Your task to perform on an android device: turn on airplane mode Image 0: 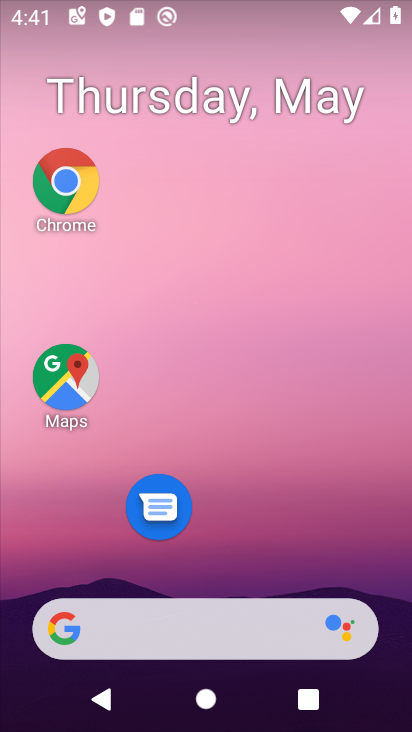
Step 0: drag from (385, 668) to (35, 131)
Your task to perform on an android device: turn on airplane mode Image 1: 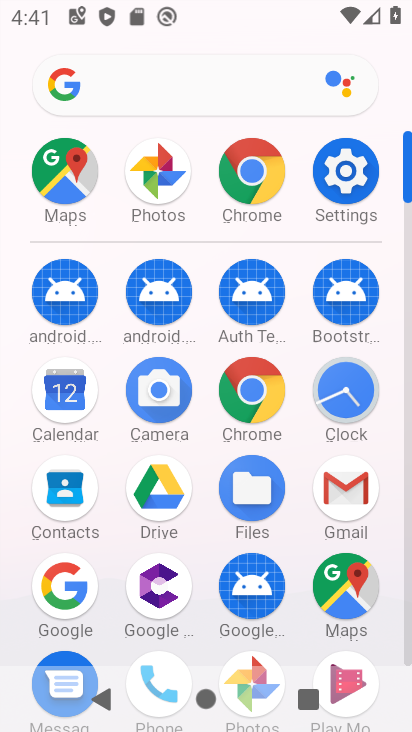
Step 1: click (344, 177)
Your task to perform on an android device: turn on airplane mode Image 2: 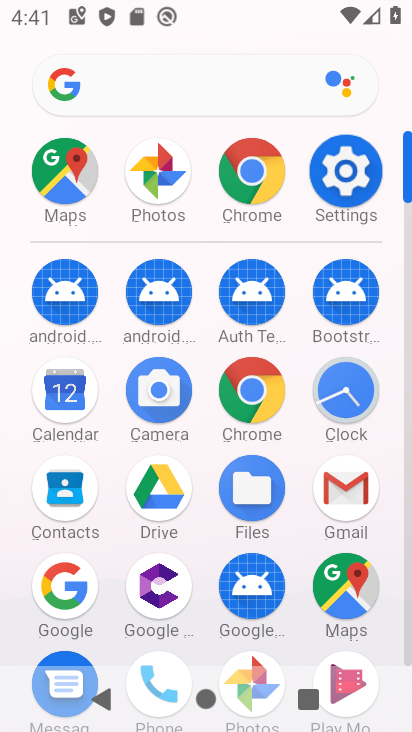
Step 2: click (346, 165)
Your task to perform on an android device: turn on airplane mode Image 3: 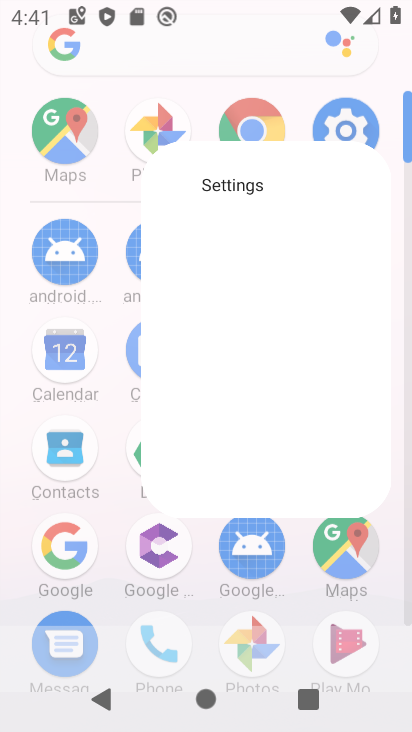
Step 3: click (347, 166)
Your task to perform on an android device: turn on airplane mode Image 4: 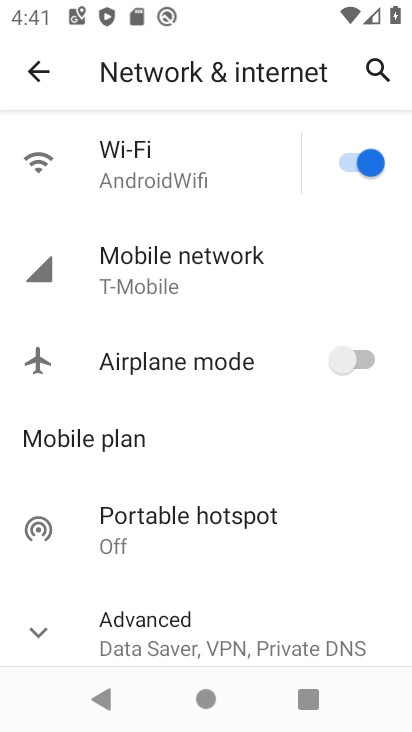
Step 4: click (344, 360)
Your task to perform on an android device: turn on airplane mode Image 5: 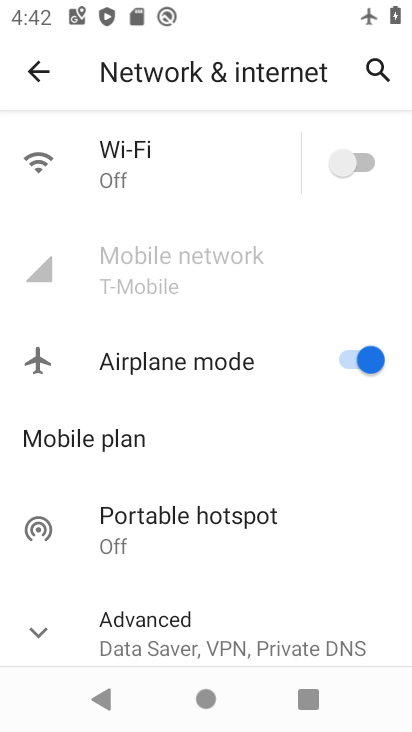
Step 5: task complete